Your task to perform on an android device: find which apps use the phone's location Image 0: 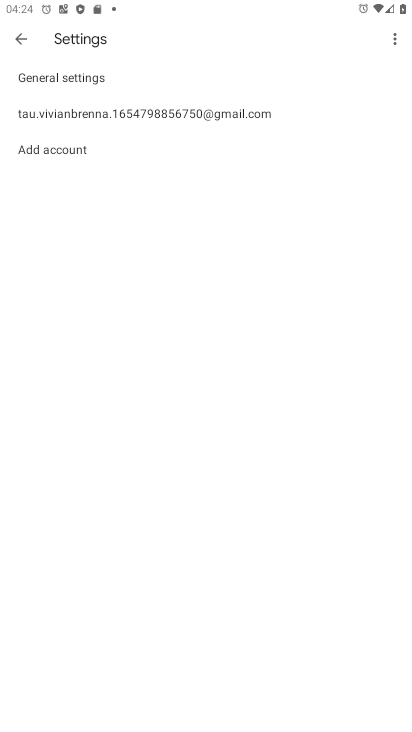
Step 0: press home button
Your task to perform on an android device: find which apps use the phone's location Image 1: 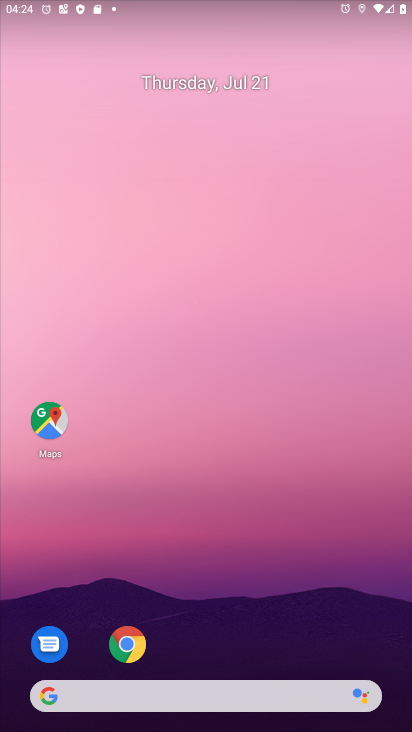
Step 1: drag from (252, 664) to (274, 14)
Your task to perform on an android device: find which apps use the phone's location Image 2: 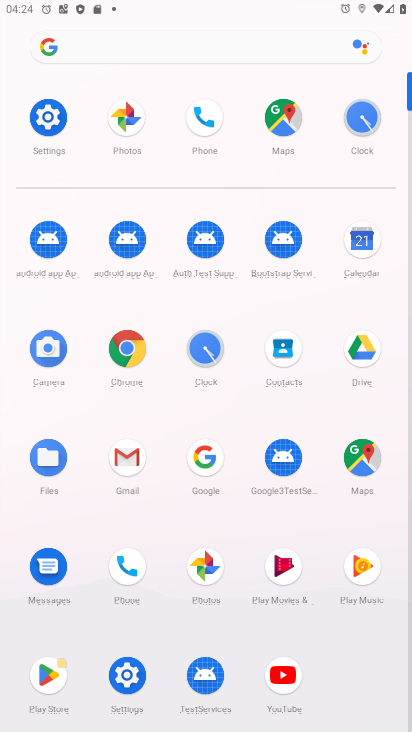
Step 2: click (49, 122)
Your task to perform on an android device: find which apps use the phone's location Image 3: 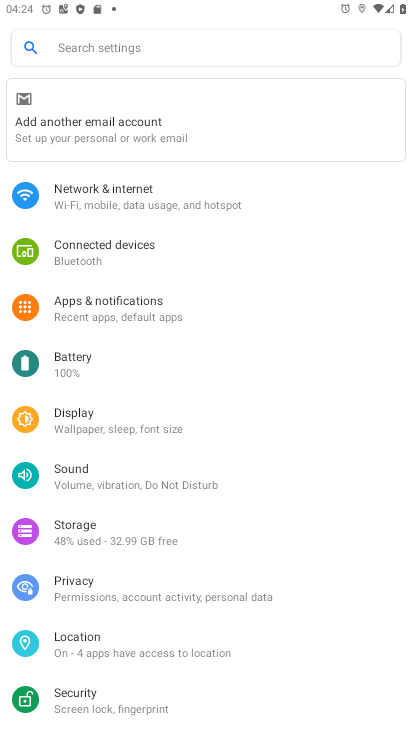
Step 3: click (74, 638)
Your task to perform on an android device: find which apps use the phone's location Image 4: 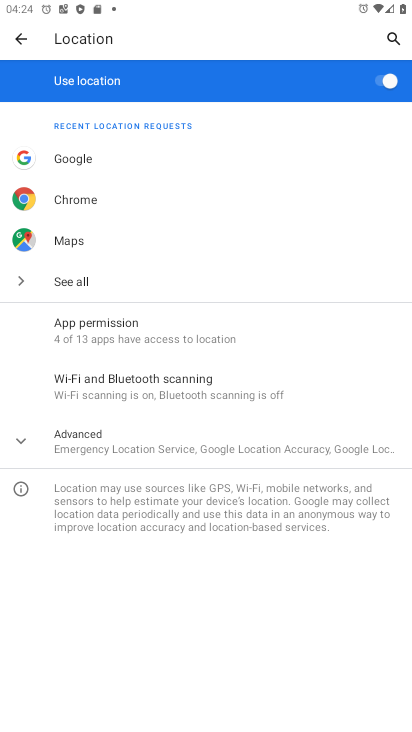
Step 4: click (82, 335)
Your task to perform on an android device: find which apps use the phone's location Image 5: 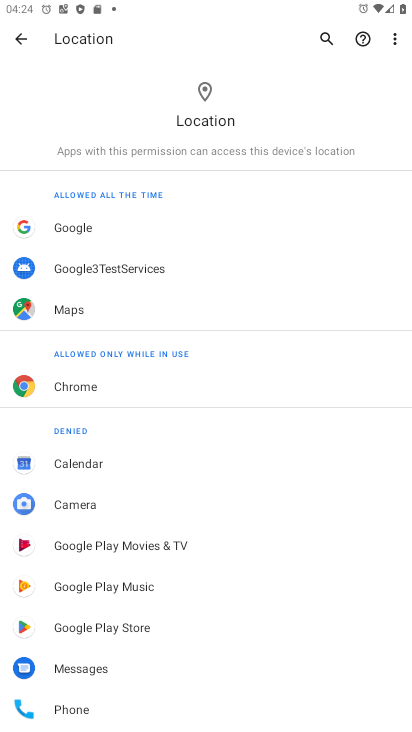
Step 5: task complete